Your task to perform on an android device: toggle sleep mode Image 0: 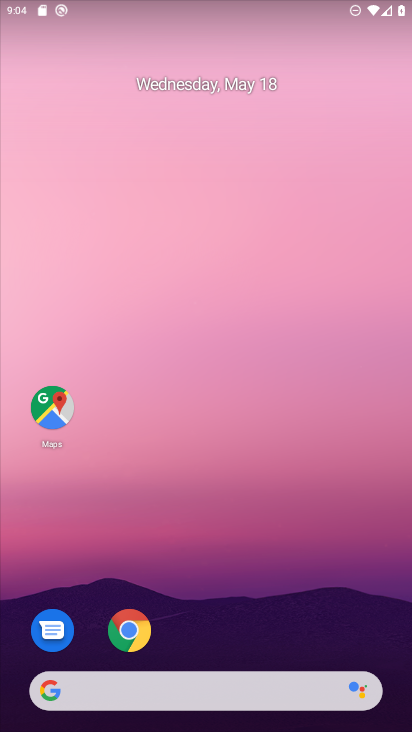
Step 0: drag from (232, 665) to (179, 72)
Your task to perform on an android device: toggle sleep mode Image 1: 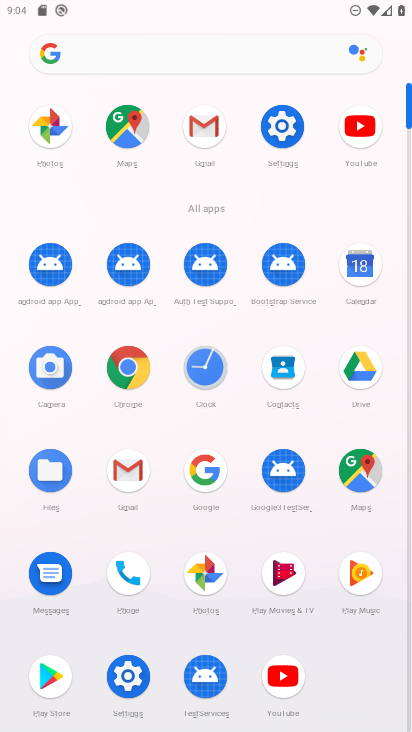
Step 1: click (280, 133)
Your task to perform on an android device: toggle sleep mode Image 2: 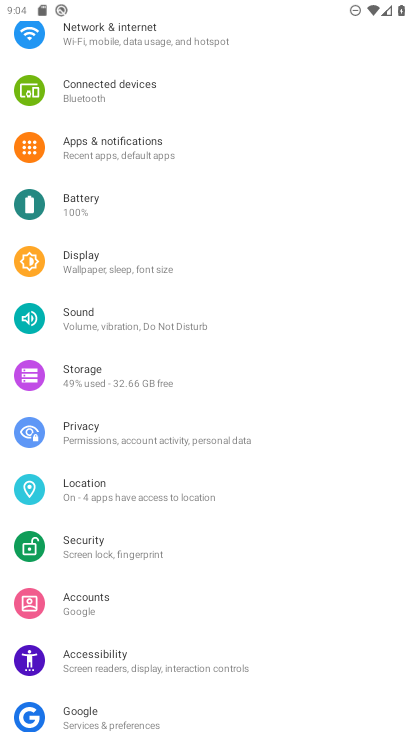
Step 2: click (105, 270)
Your task to perform on an android device: toggle sleep mode Image 3: 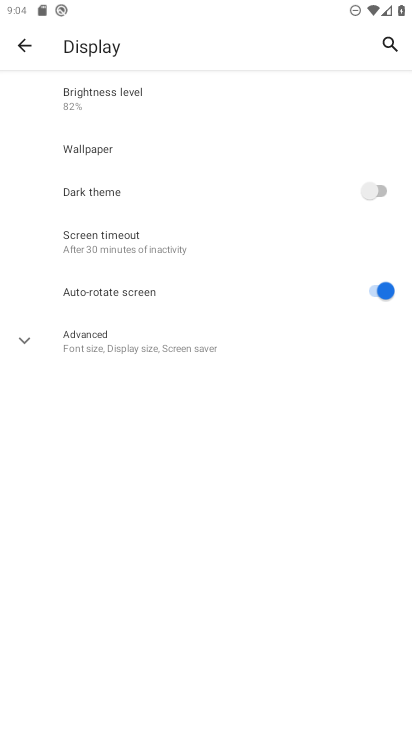
Step 3: task complete